Your task to perform on an android device: turn on translation in the chrome app Image 0: 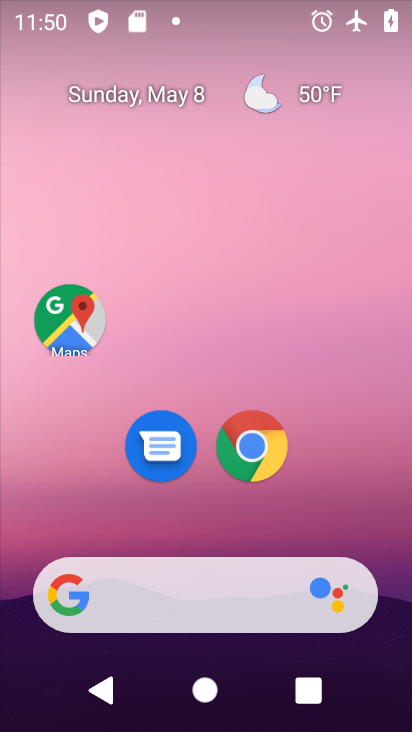
Step 0: click (249, 457)
Your task to perform on an android device: turn on translation in the chrome app Image 1: 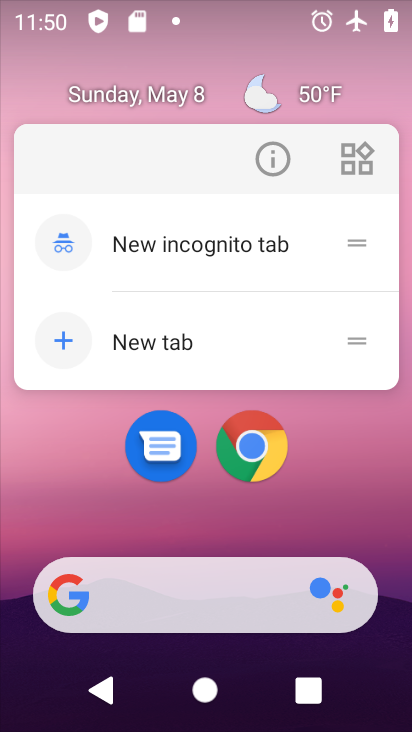
Step 1: click (249, 457)
Your task to perform on an android device: turn on translation in the chrome app Image 2: 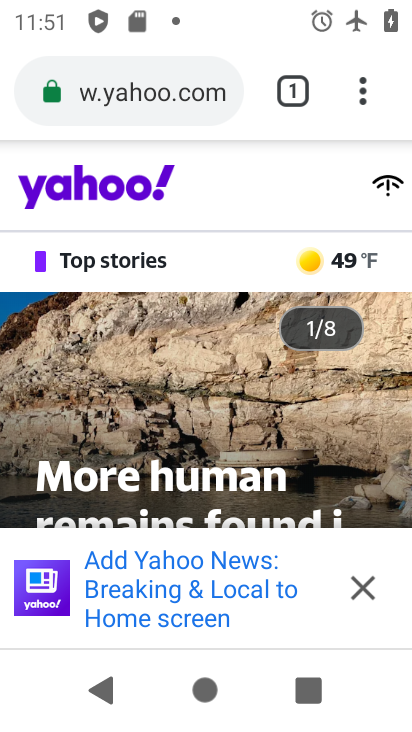
Step 2: click (357, 93)
Your task to perform on an android device: turn on translation in the chrome app Image 3: 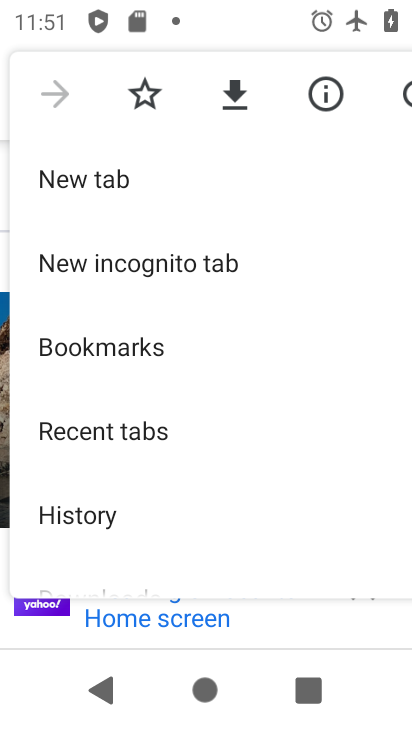
Step 3: drag from (144, 521) to (191, 276)
Your task to perform on an android device: turn on translation in the chrome app Image 4: 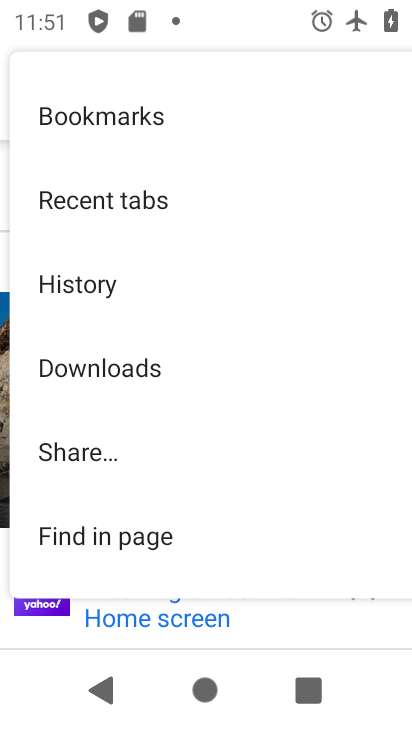
Step 4: drag from (154, 508) to (215, 241)
Your task to perform on an android device: turn on translation in the chrome app Image 5: 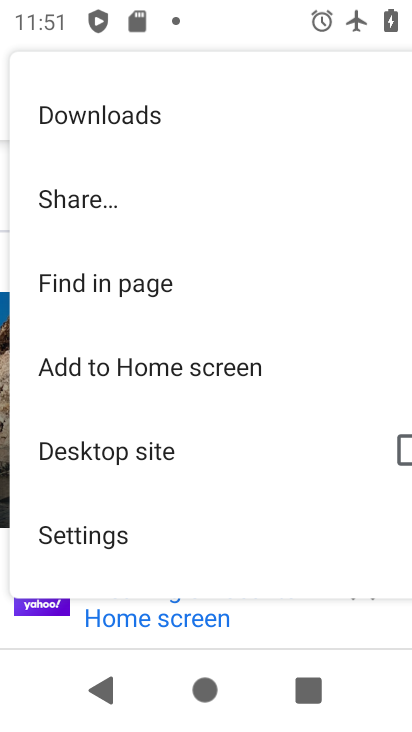
Step 5: click (152, 542)
Your task to perform on an android device: turn on translation in the chrome app Image 6: 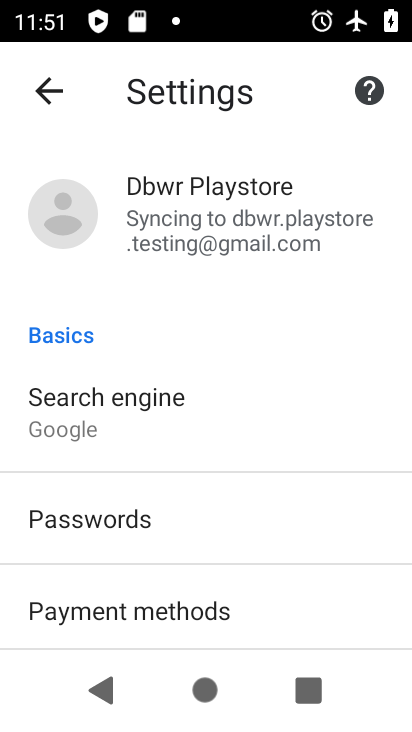
Step 6: drag from (159, 565) to (197, 371)
Your task to perform on an android device: turn on translation in the chrome app Image 7: 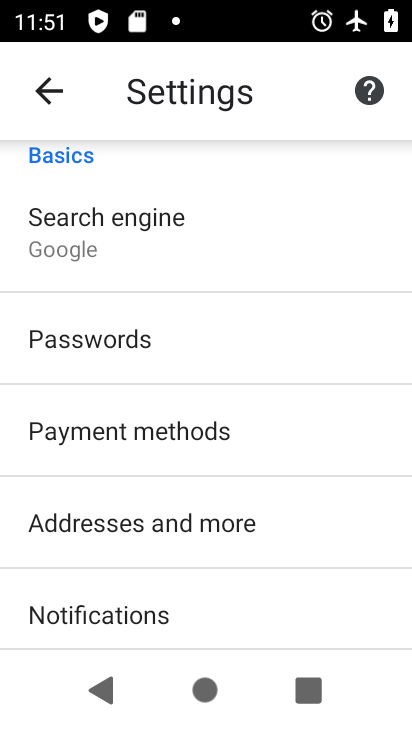
Step 7: drag from (168, 564) to (226, 377)
Your task to perform on an android device: turn on translation in the chrome app Image 8: 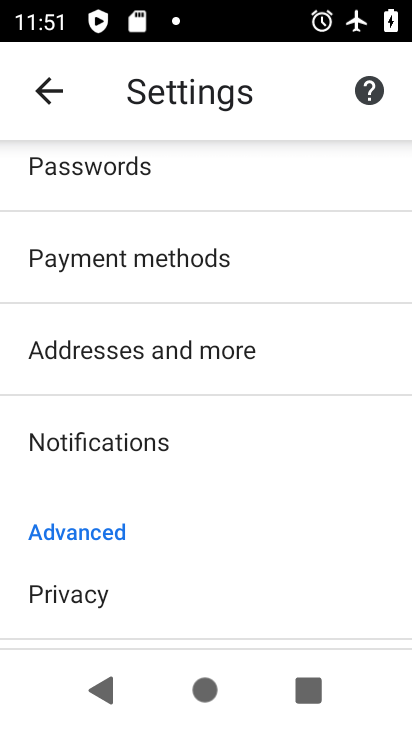
Step 8: drag from (234, 481) to (238, 328)
Your task to perform on an android device: turn on translation in the chrome app Image 9: 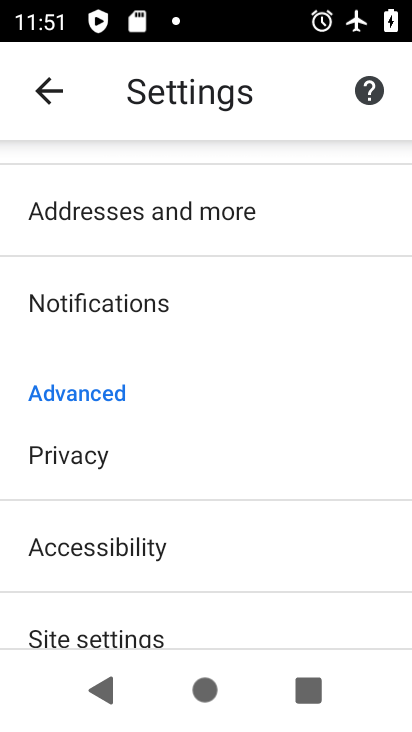
Step 9: drag from (158, 585) to (210, 418)
Your task to perform on an android device: turn on translation in the chrome app Image 10: 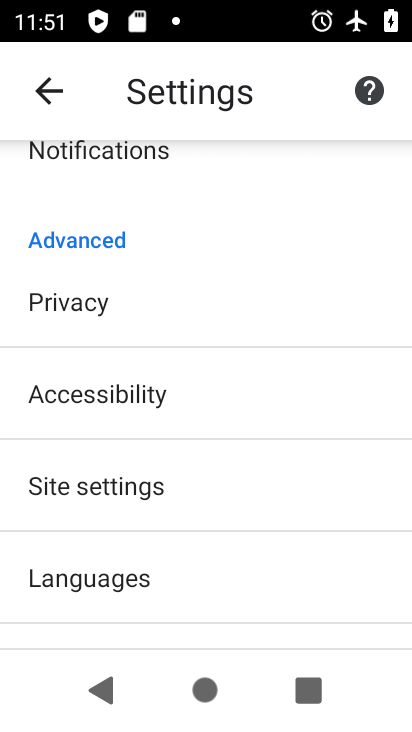
Step 10: click (157, 581)
Your task to perform on an android device: turn on translation in the chrome app Image 11: 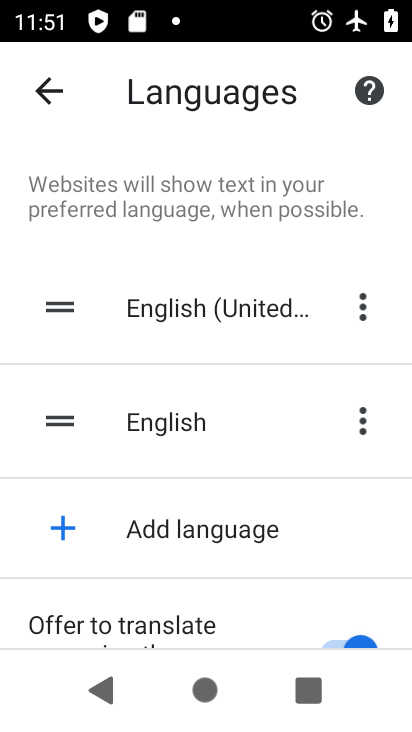
Step 11: task complete